Your task to perform on an android device: Open the stopwatch Image 0: 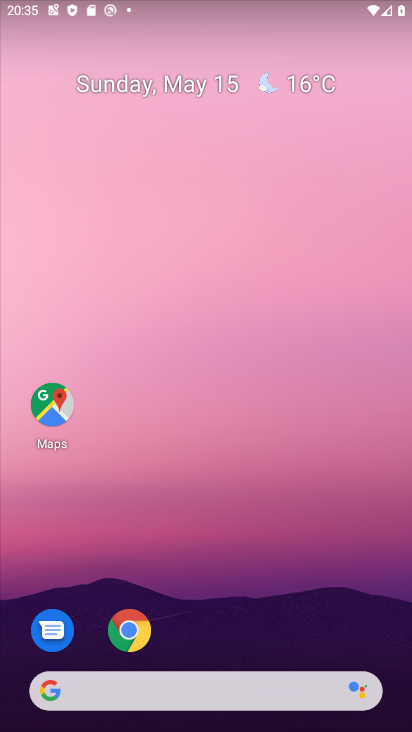
Step 0: drag from (218, 642) to (225, 132)
Your task to perform on an android device: Open the stopwatch Image 1: 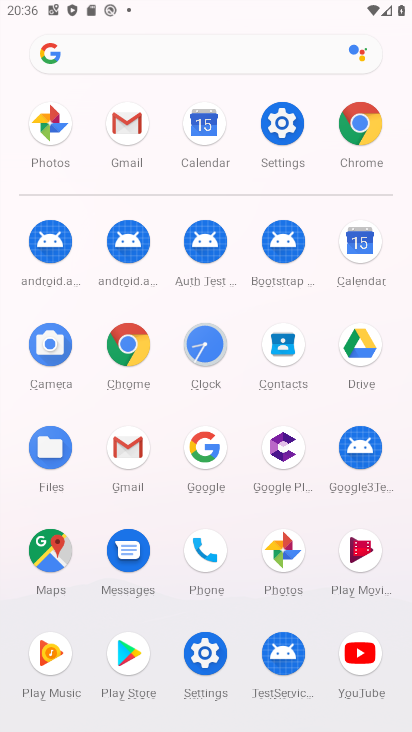
Step 1: click (191, 352)
Your task to perform on an android device: Open the stopwatch Image 2: 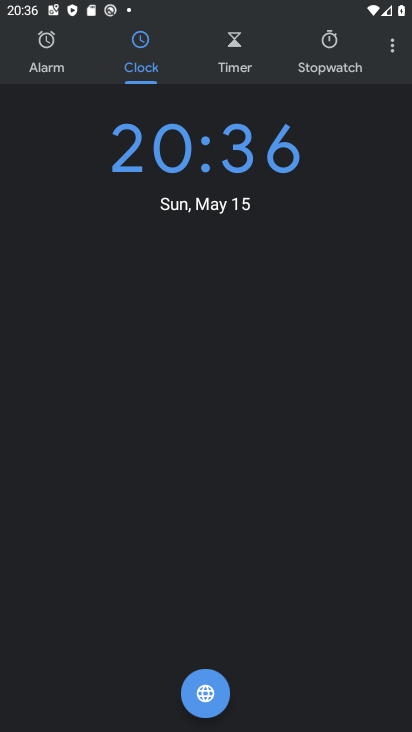
Step 2: click (322, 62)
Your task to perform on an android device: Open the stopwatch Image 3: 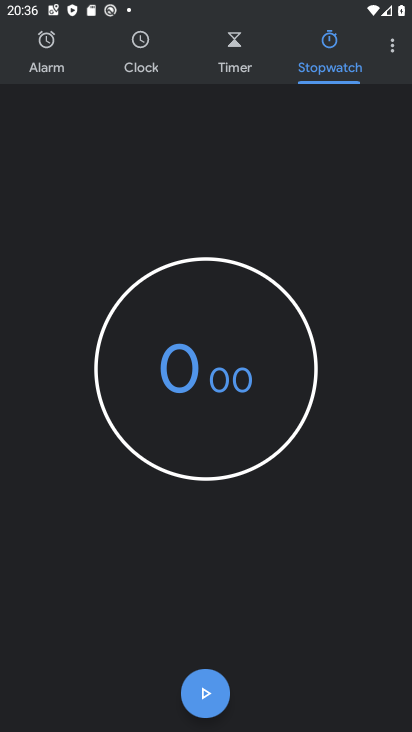
Step 3: click (227, 701)
Your task to perform on an android device: Open the stopwatch Image 4: 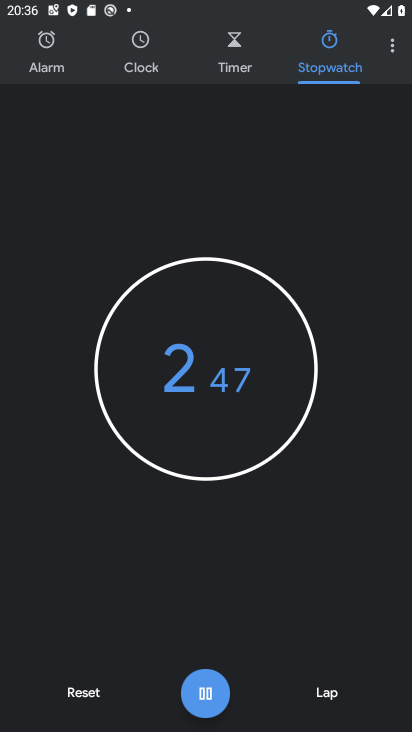
Step 4: task complete